Your task to perform on an android device: Open calendar and show me the fourth week of next month Image 0: 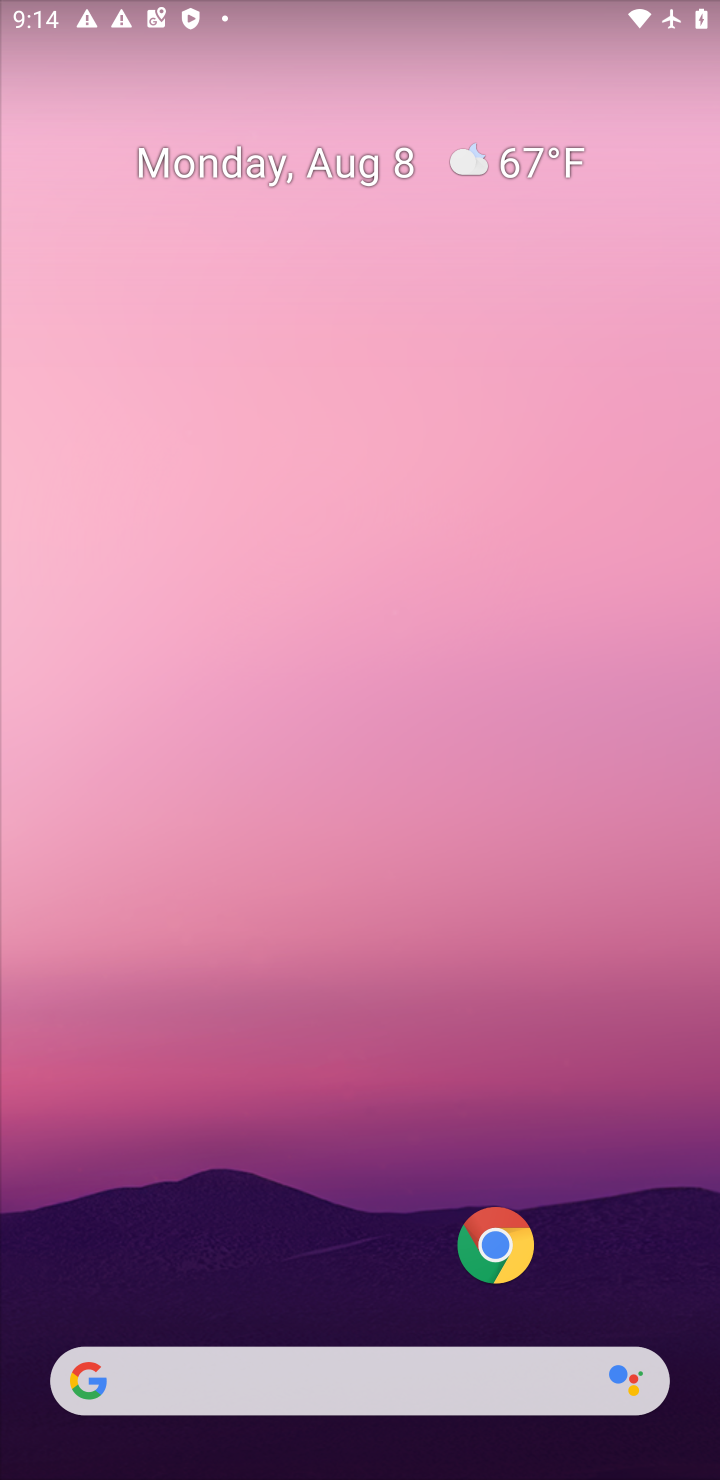
Step 0: drag from (295, 1171) to (516, 3)
Your task to perform on an android device: Open calendar and show me the fourth week of next month Image 1: 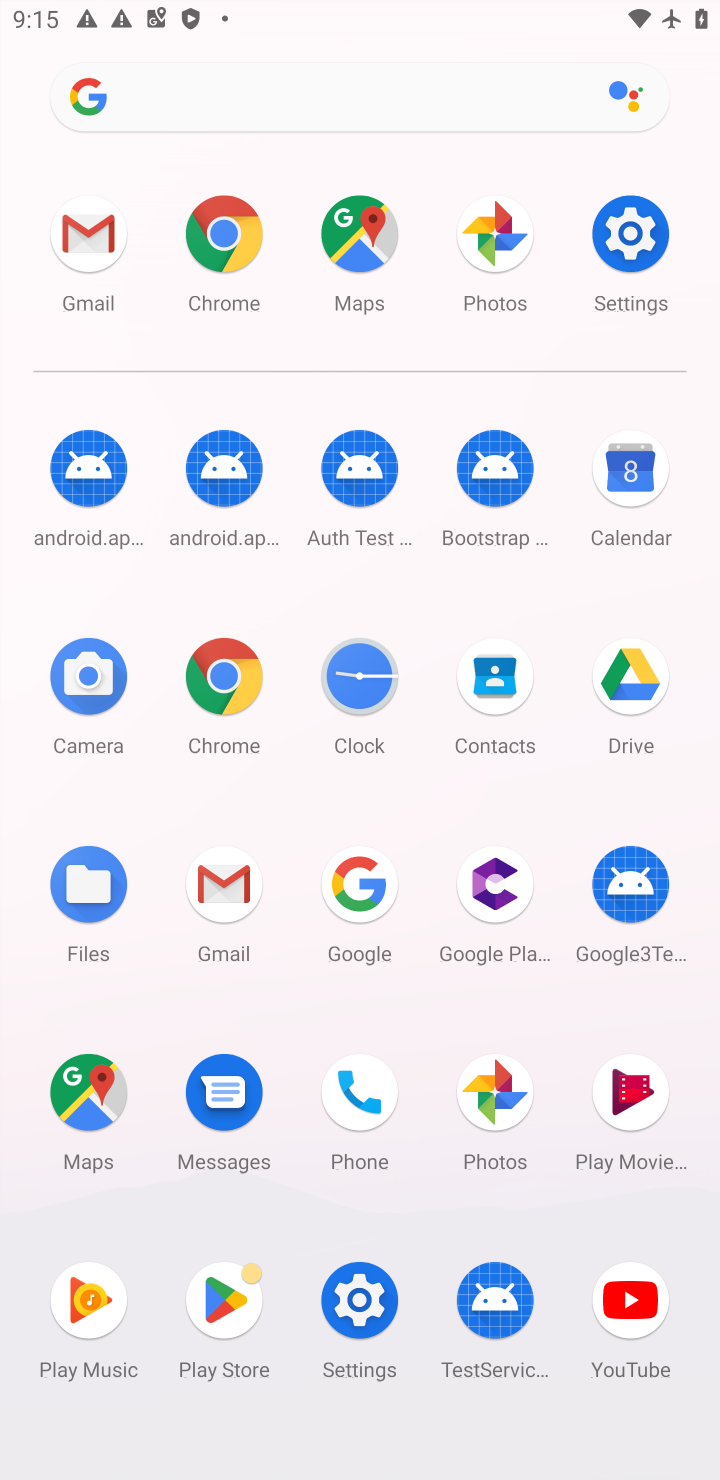
Step 1: click (641, 512)
Your task to perform on an android device: Open calendar and show me the fourth week of next month Image 2: 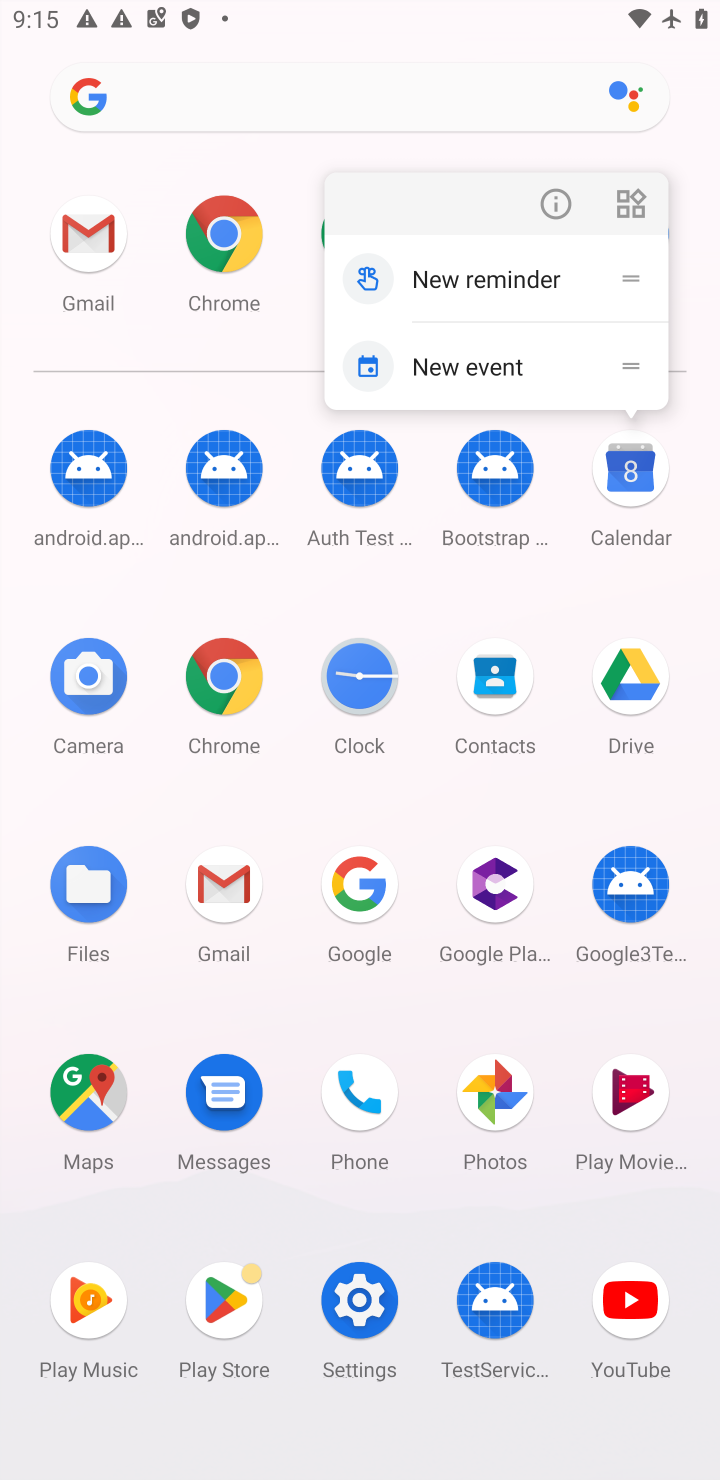
Step 2: click (616, 478)
Your task to perform on an android device: Open calendar and show me the fourth week of next month Image 3: 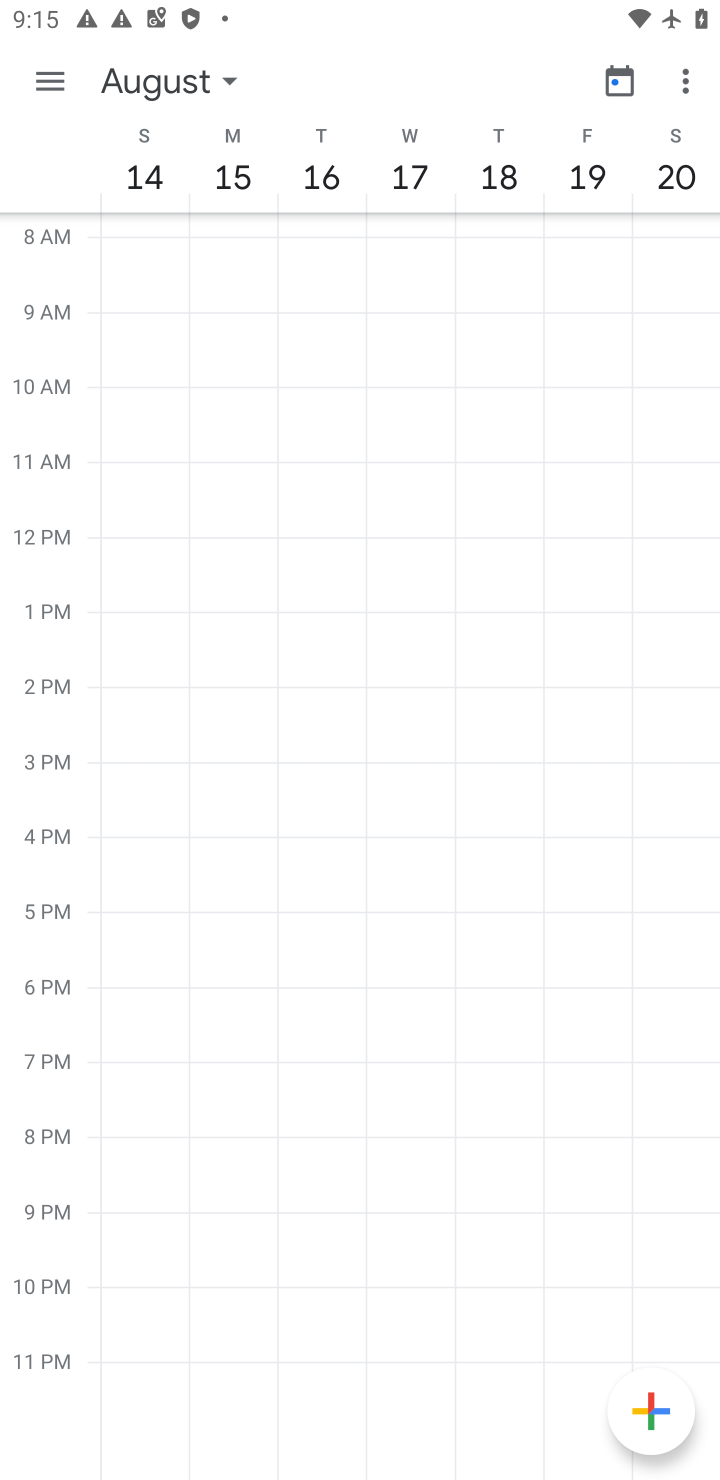
Step 3: click (128, 76)
Your task to perform on an android device: Open calendar and show me the fourth week of next month Image 4: 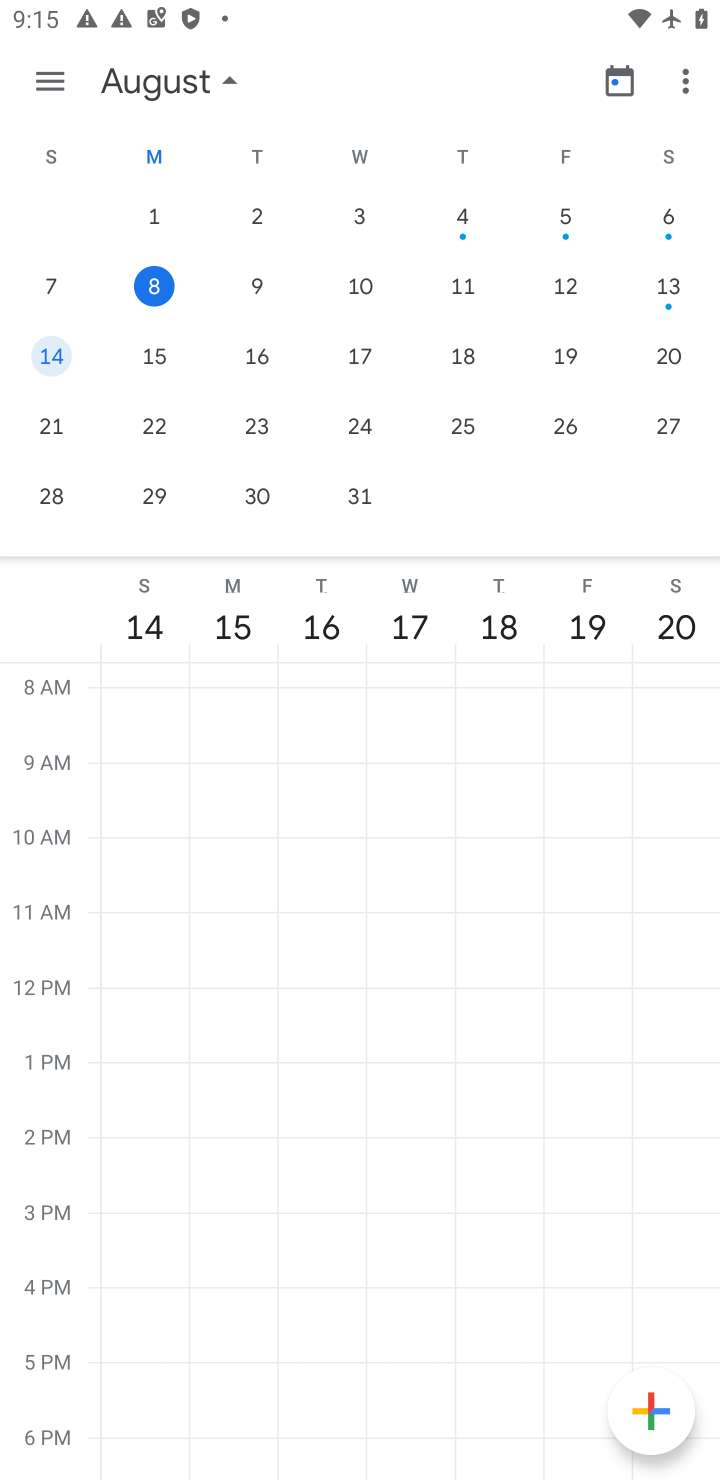
Step 4: drag from (486, 373) to (1, 351)
Your task to perform on an android device: Open calendar and show me the fourth week of next month Image 5: 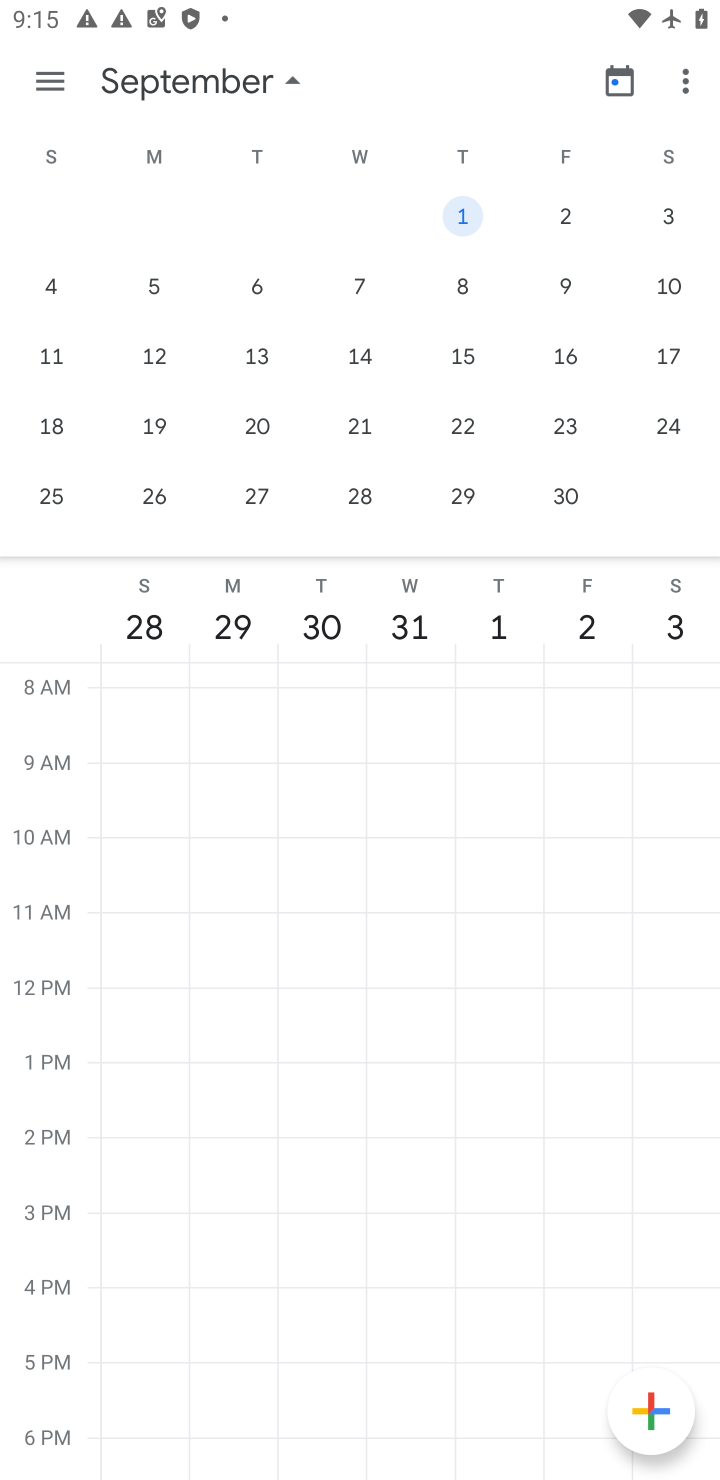
Step 5: click (39, 81)
Your task to perform on an android device: Open calendar and show me the fourth week of next month Image 6: 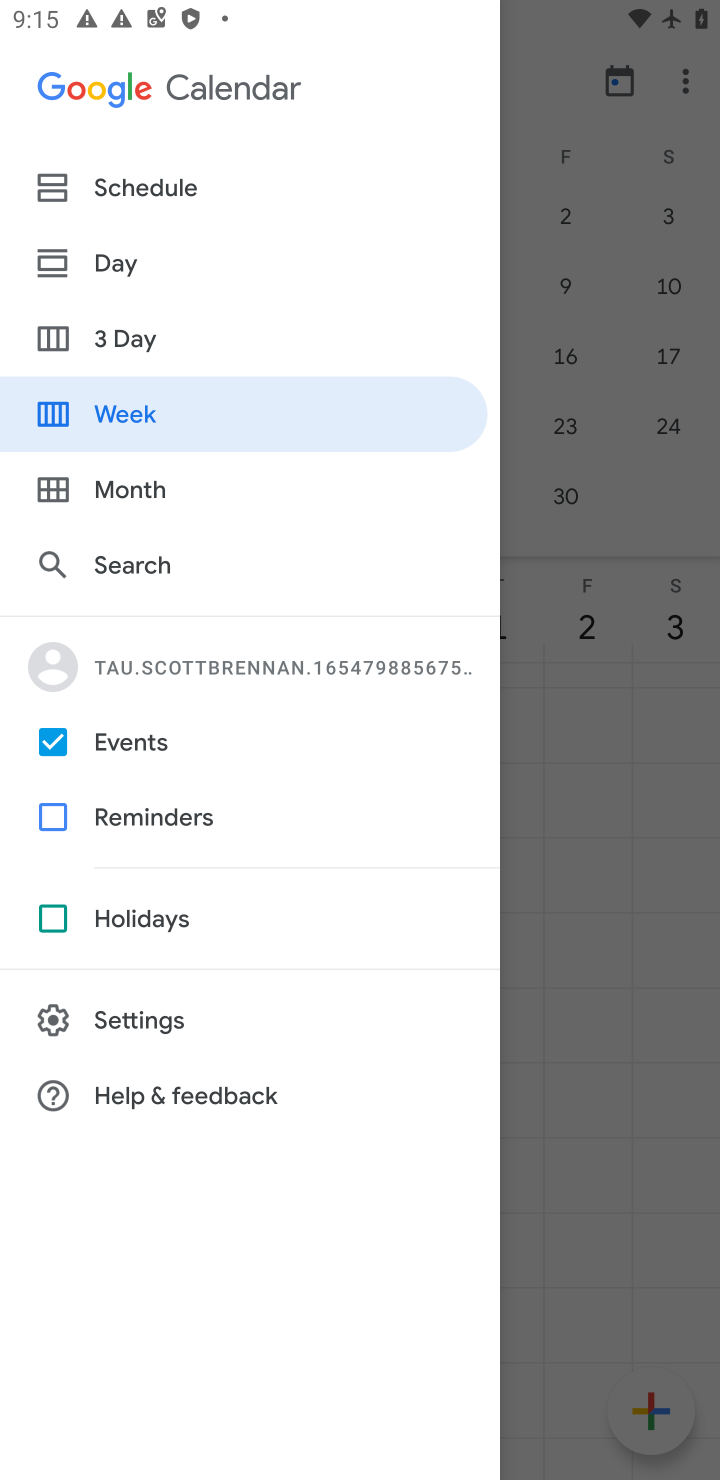
Step 6: click (612, 434)
Your task to perform on an android device: Open calendar and show me the fourth week of next month Image 7: 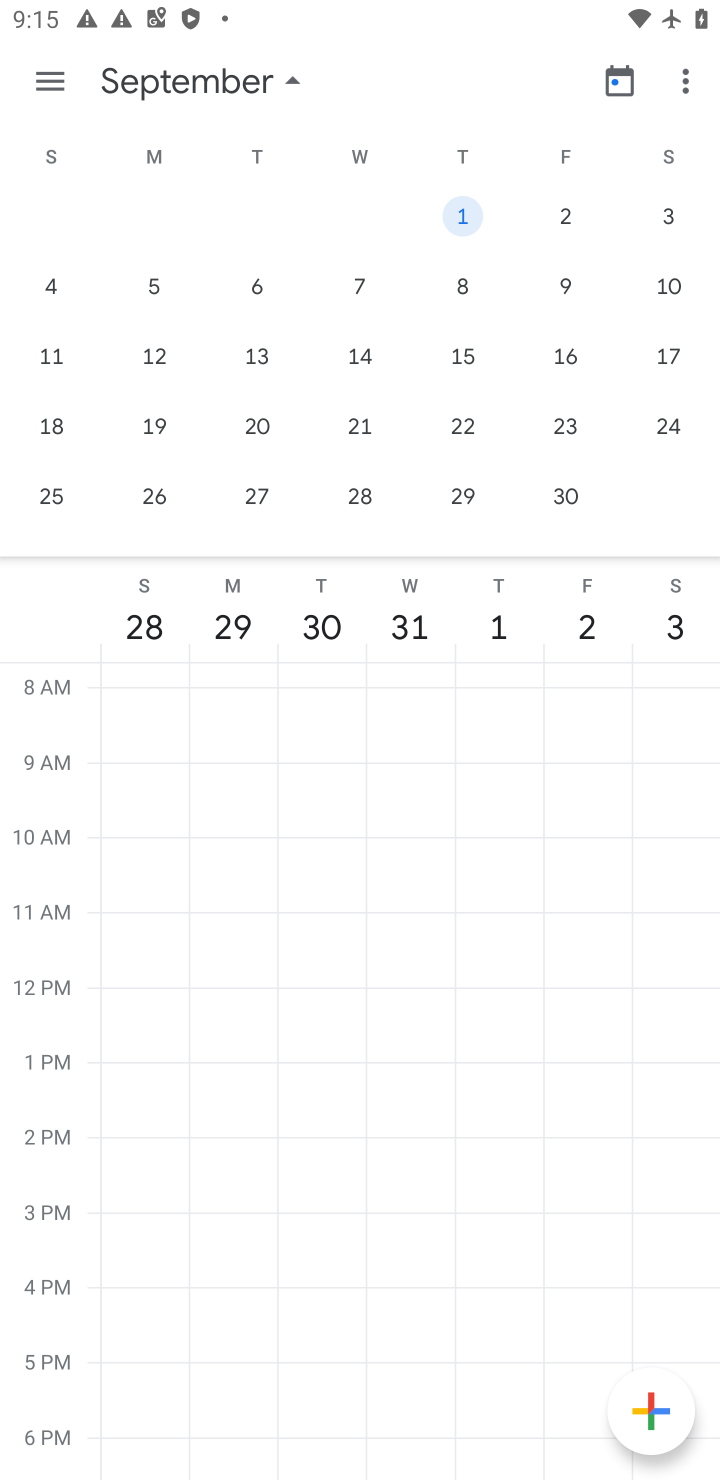
Step 7: click (606, 432)
Your task to perform on an android device: Open calendar and show me the fourth week of next month Image 8: 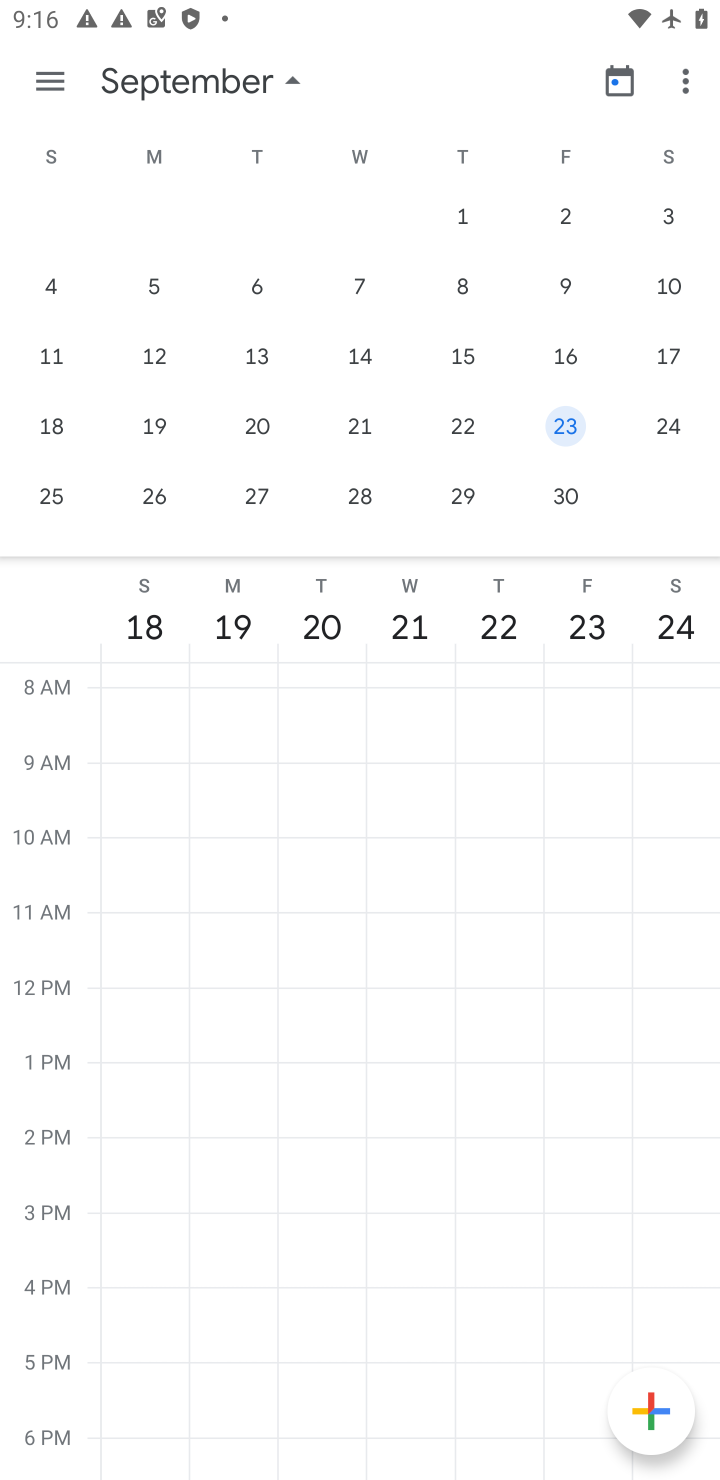
Step 8: drag from (572, 612) to (5, 528)
Your task to perform on an android device: Open calendar and show me the fourth week of next month Image 9: 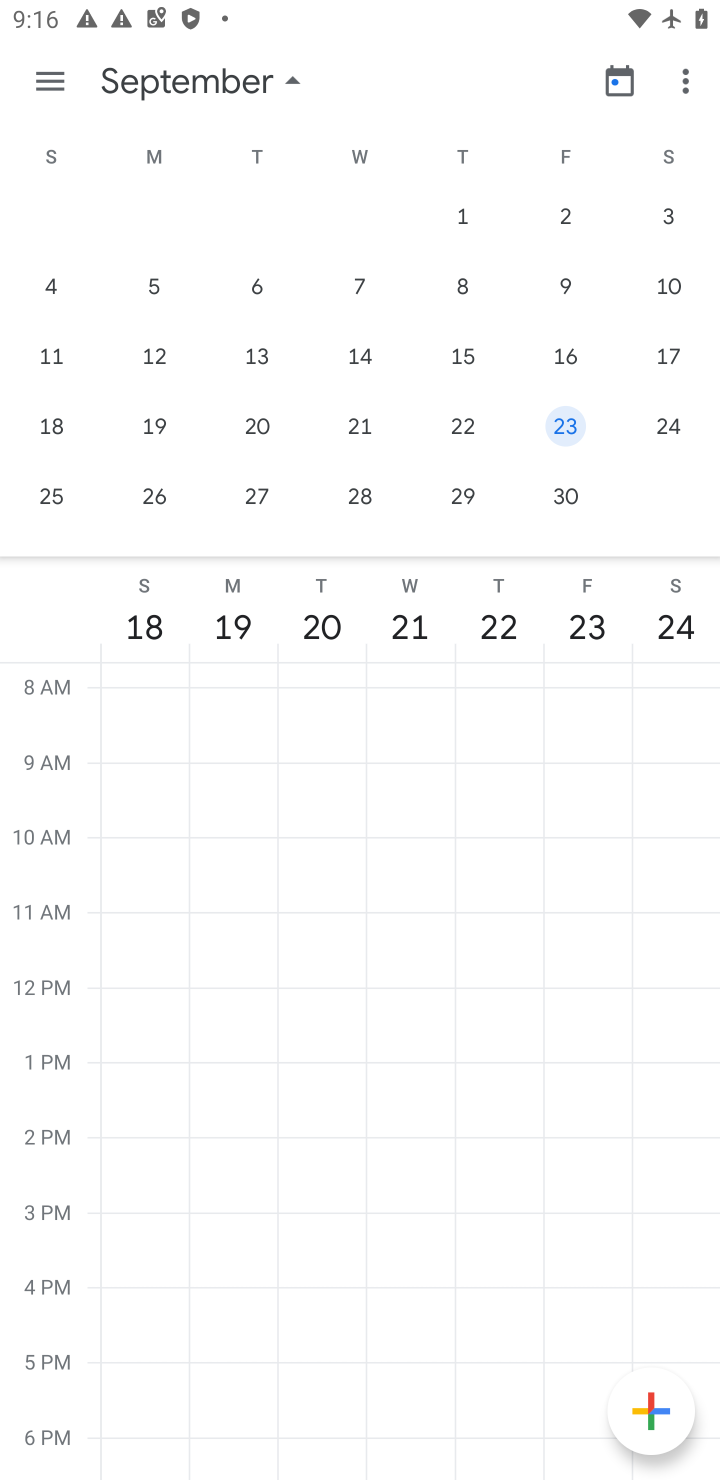
Step 9: click (358, 512)
Your task to perform on an android device: Open calendar and show me the fourth week of next month Image 10: 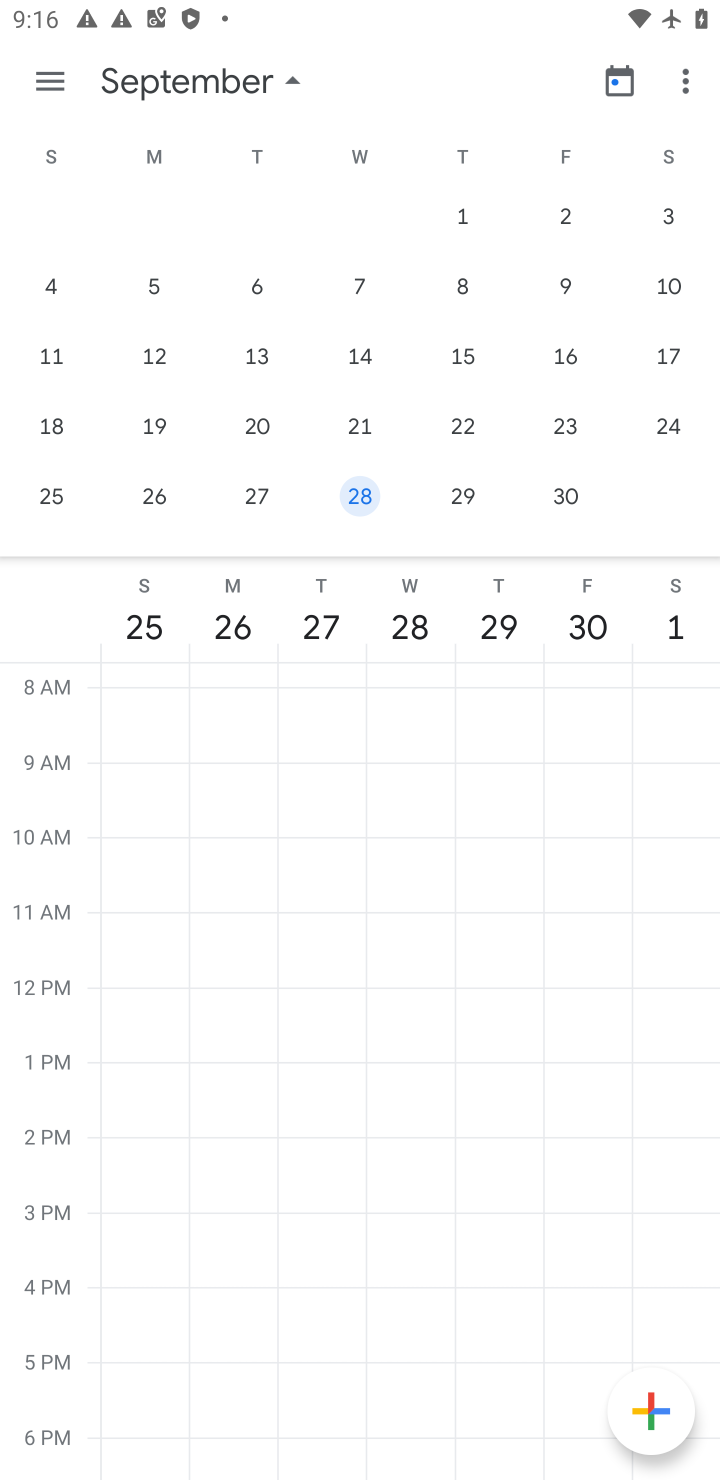
Step 10: drag from (346, 547) to (234, 34)
Your task to perform on an android device: Open calendar and show me the fourth week of next month Image 11: 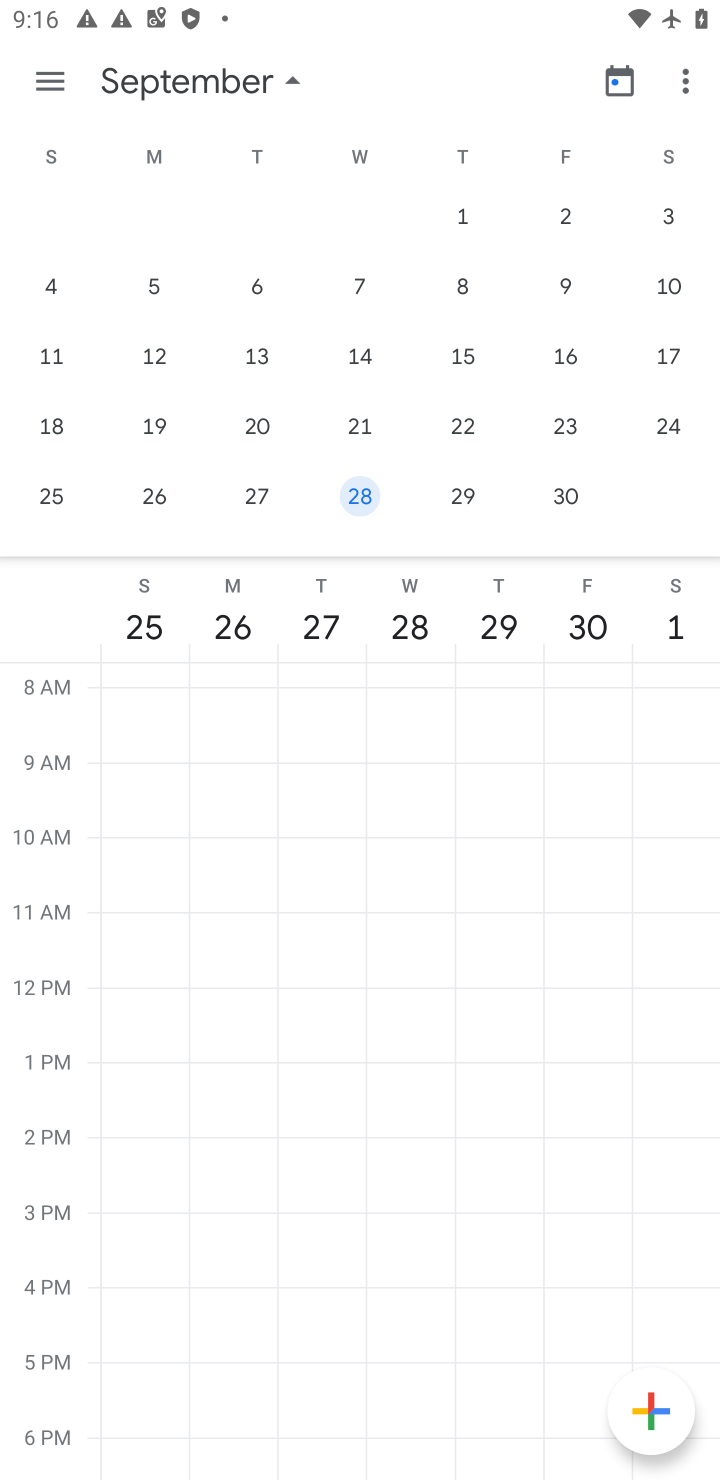
Step 11: click (49, 79)
Your task to perform on an android device: Open calendar and show me the fourth week of next month Image 12: 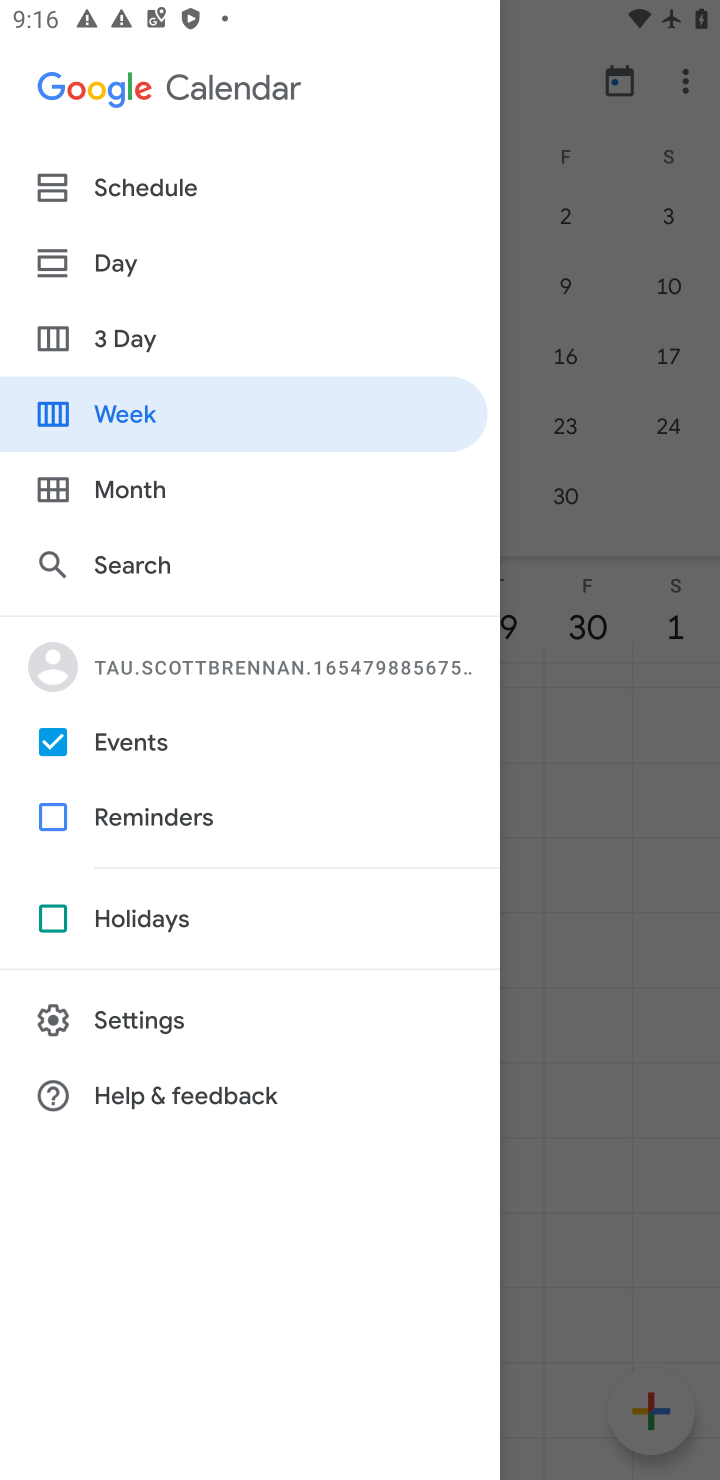
Step 12: click (131, 420)
Your task to perform on an android device: Open calendar and show me the fourth week of next month Image 13: 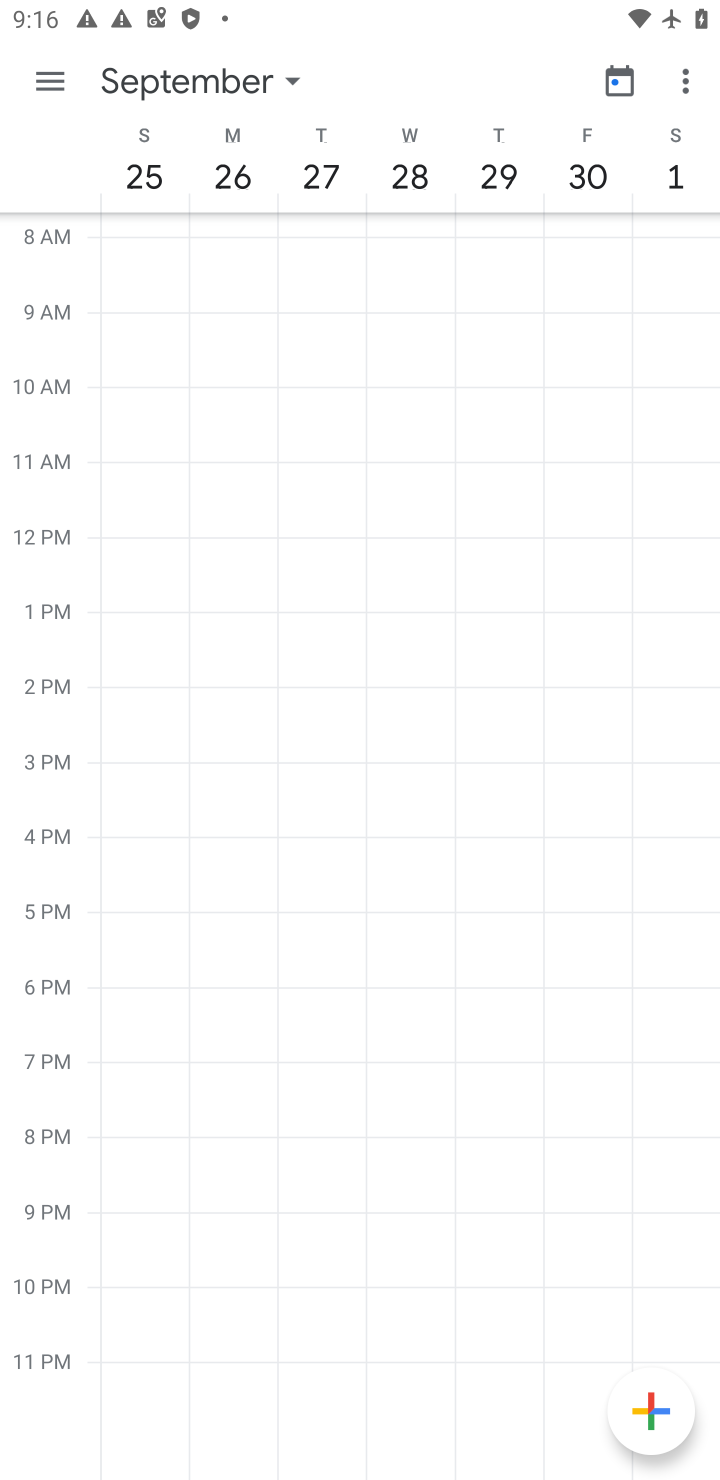
Step 13: task complete